Your task to perform on an android device: toggle data saver in the chrome app Image 0: 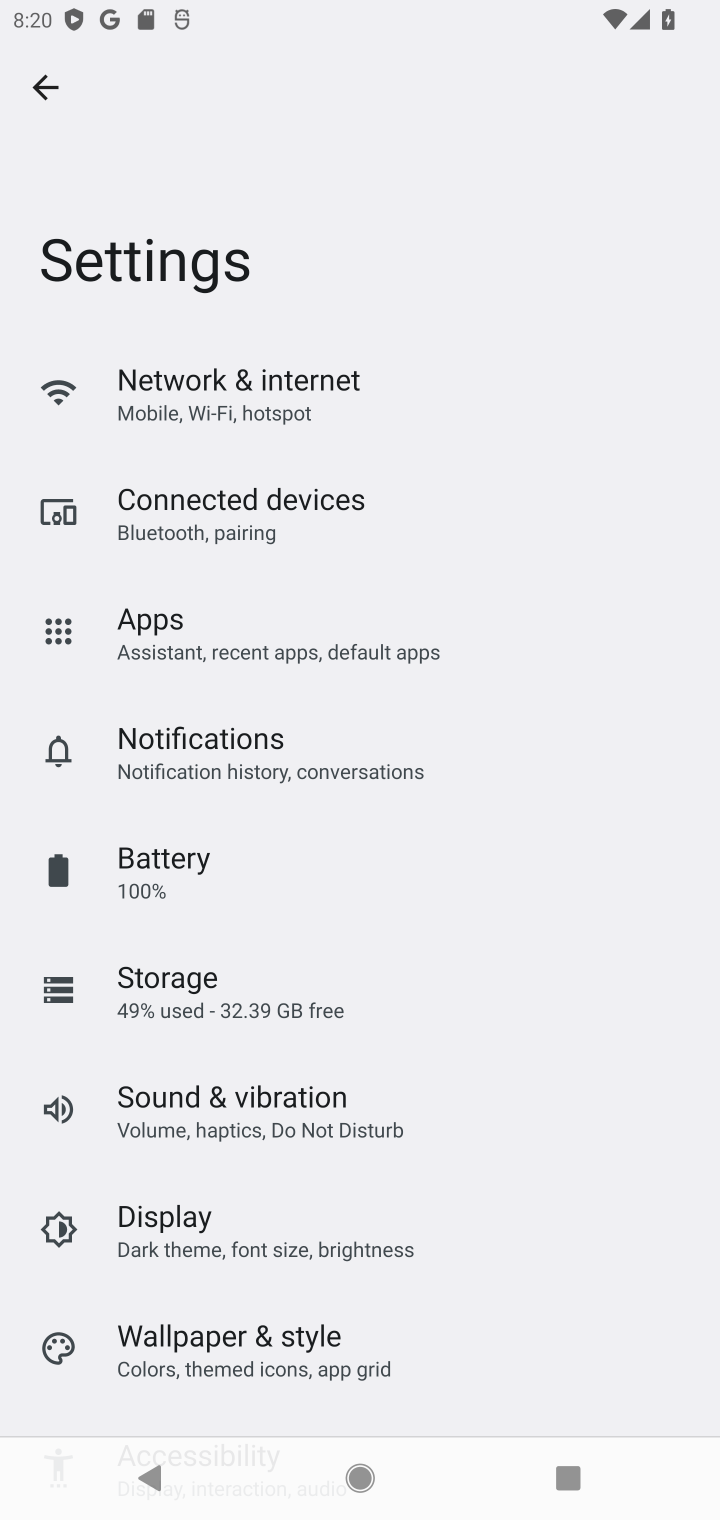
Step 0: press home button
Your task to perform on an android device: toggle data saver in the chrome app Image 1: 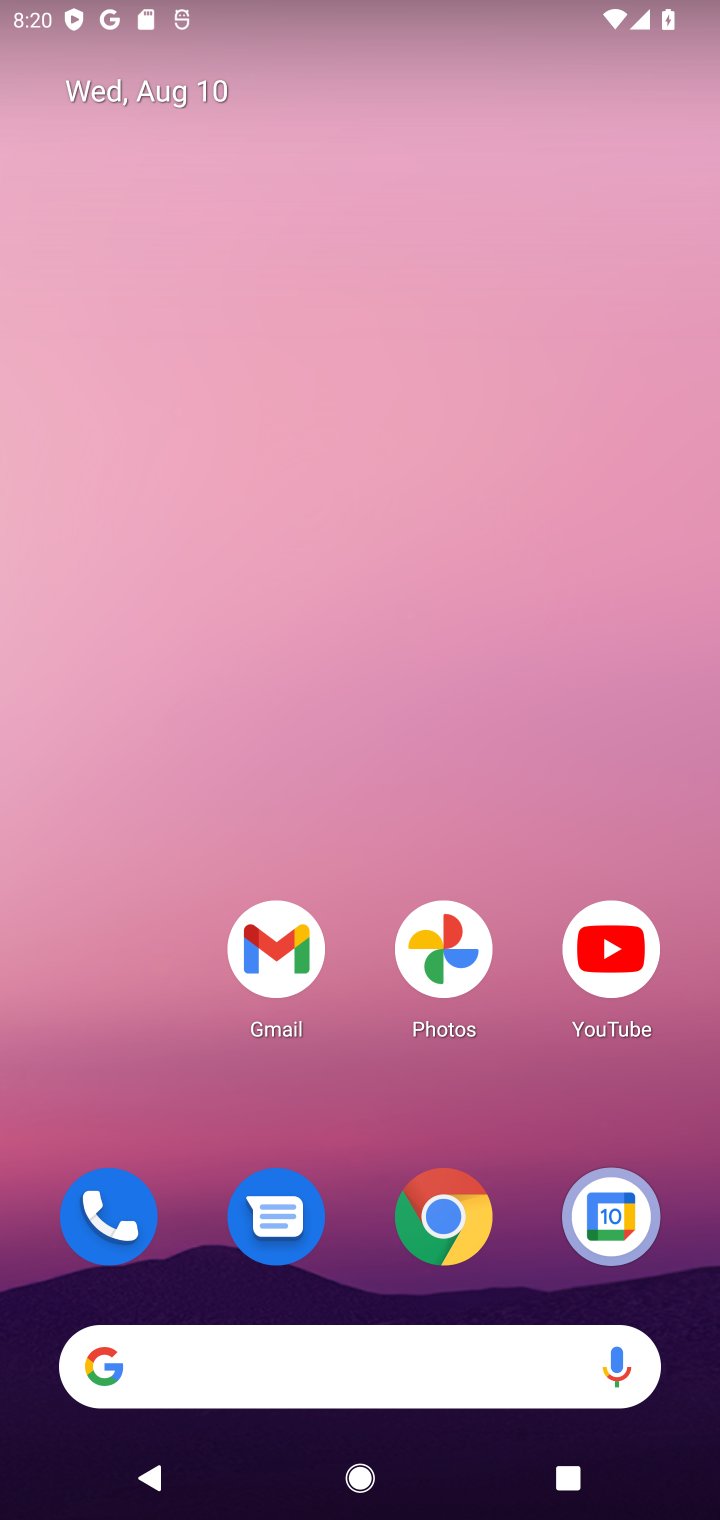
Step 1: click (452, 1428)
Your task to perform on an android device: toggle data saver in the chrome app Image 2: 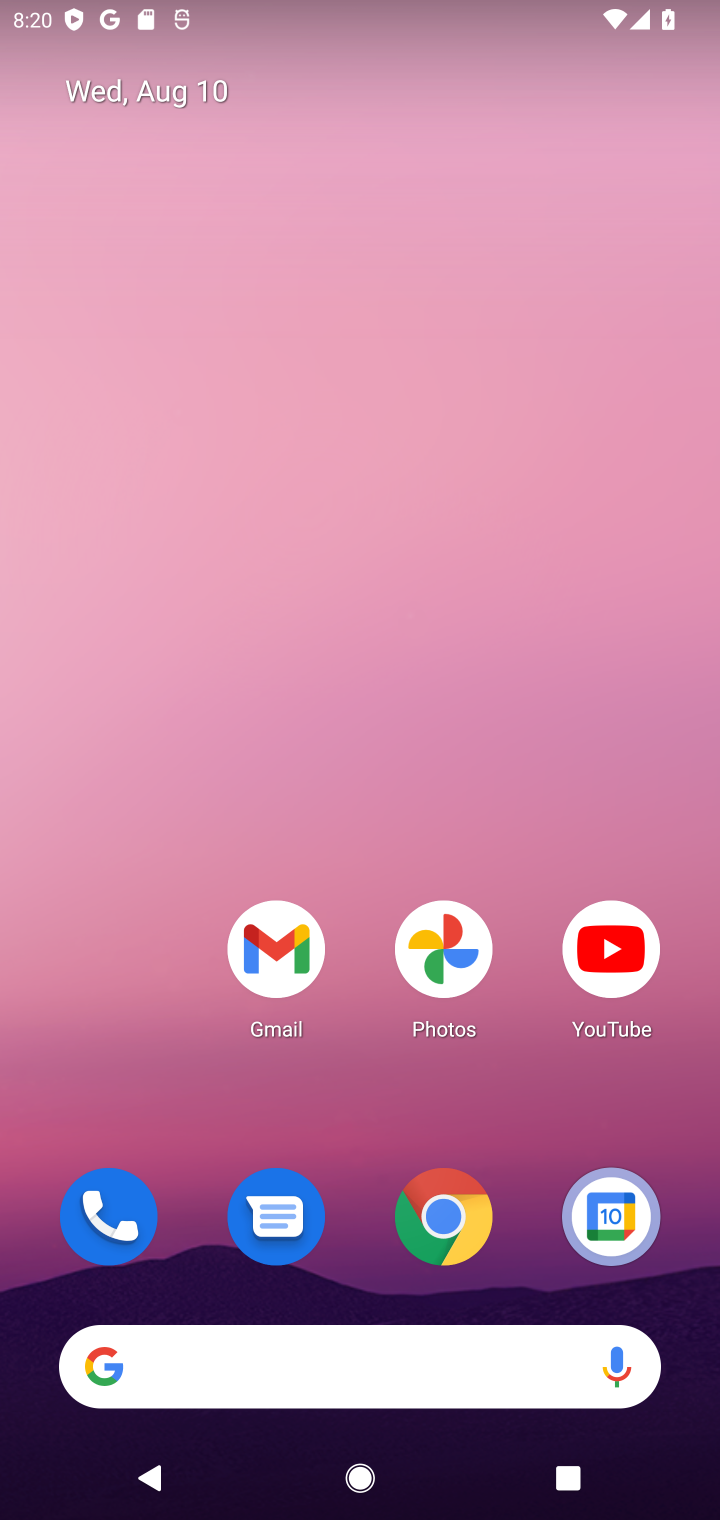
Step 2: click (449, 1210)
Your task to perform on an android device: toggle data saver in the chrome app Image 3: 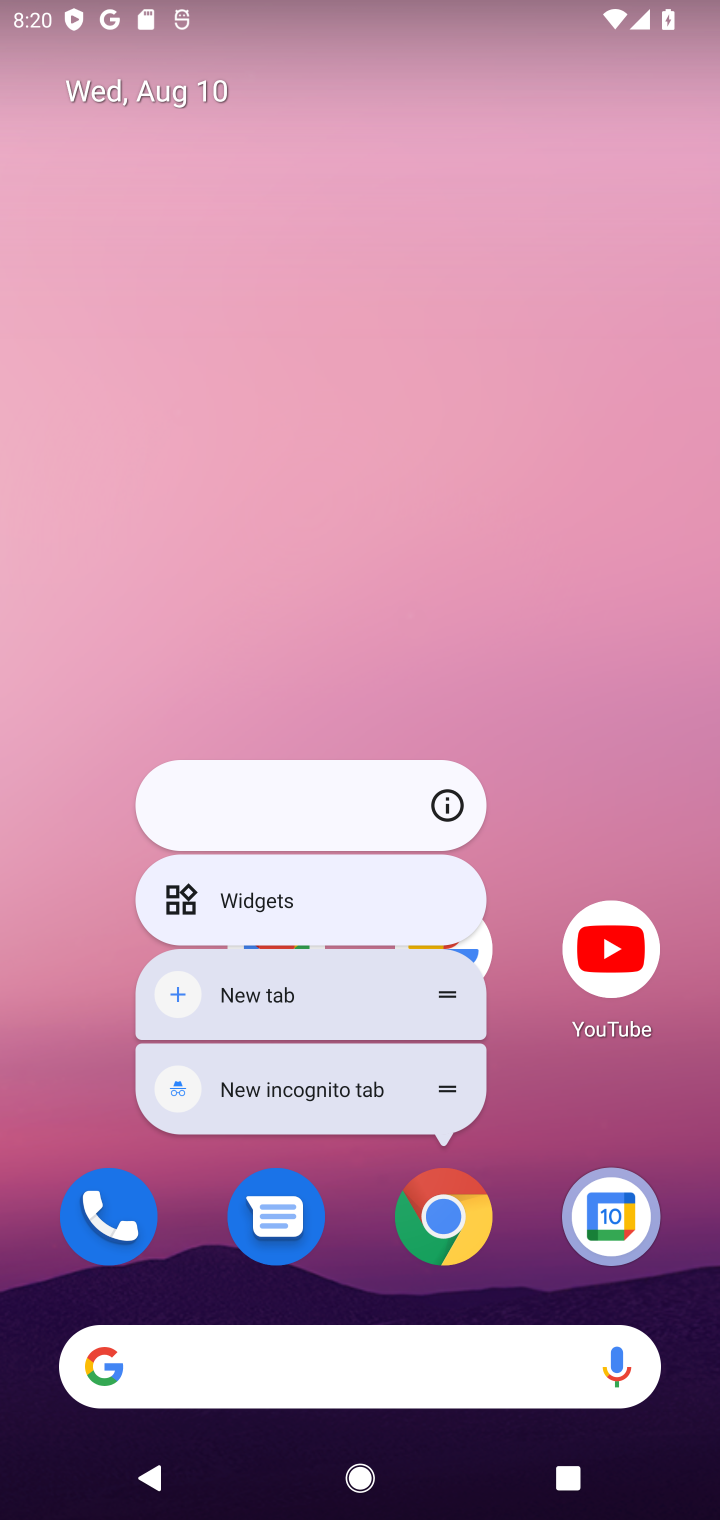
Step 3: click (431, 1217)
Your task to perform on an android device: toggle data saver in the chrome app Image 4: 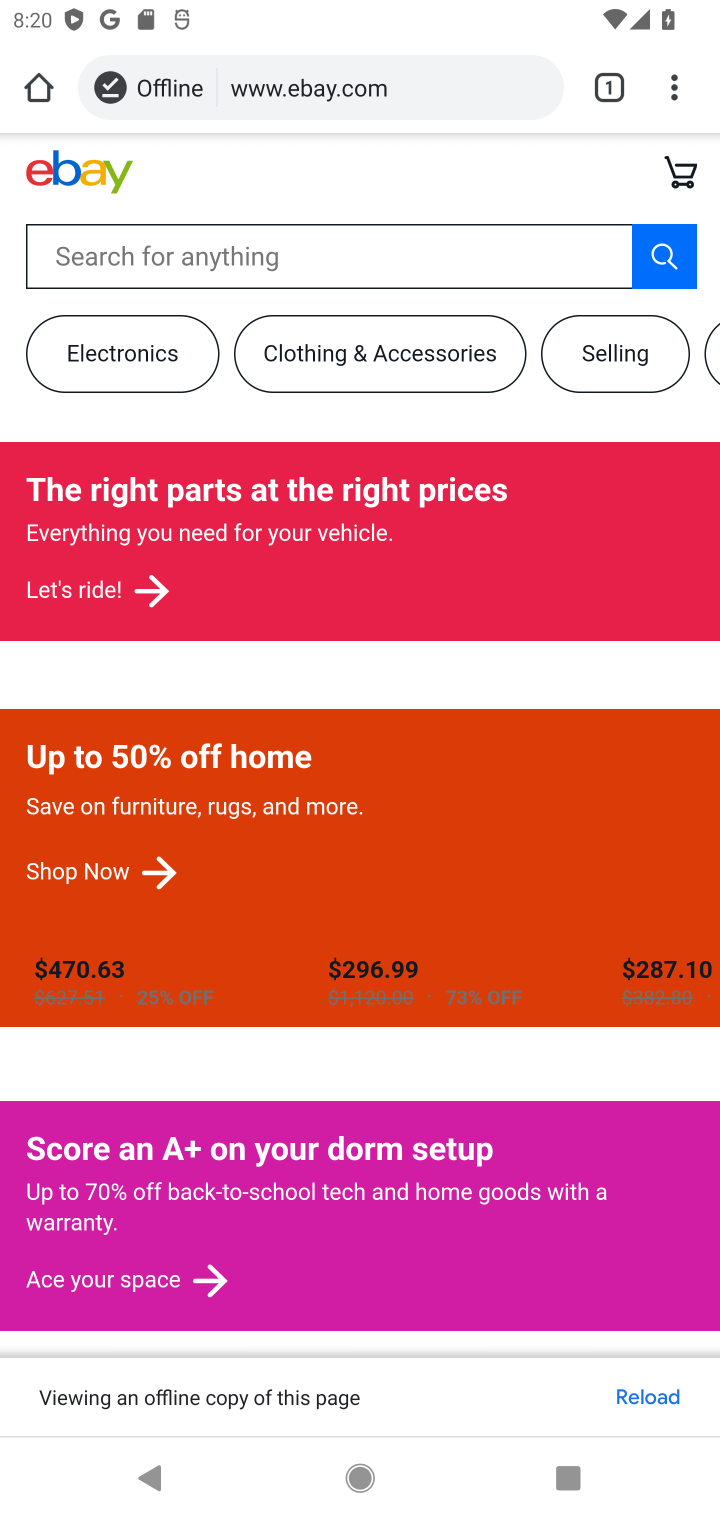
Step 4: click (669, 91)
Your task to perform on an android device: toggle data saver in the chrome app Image 5: 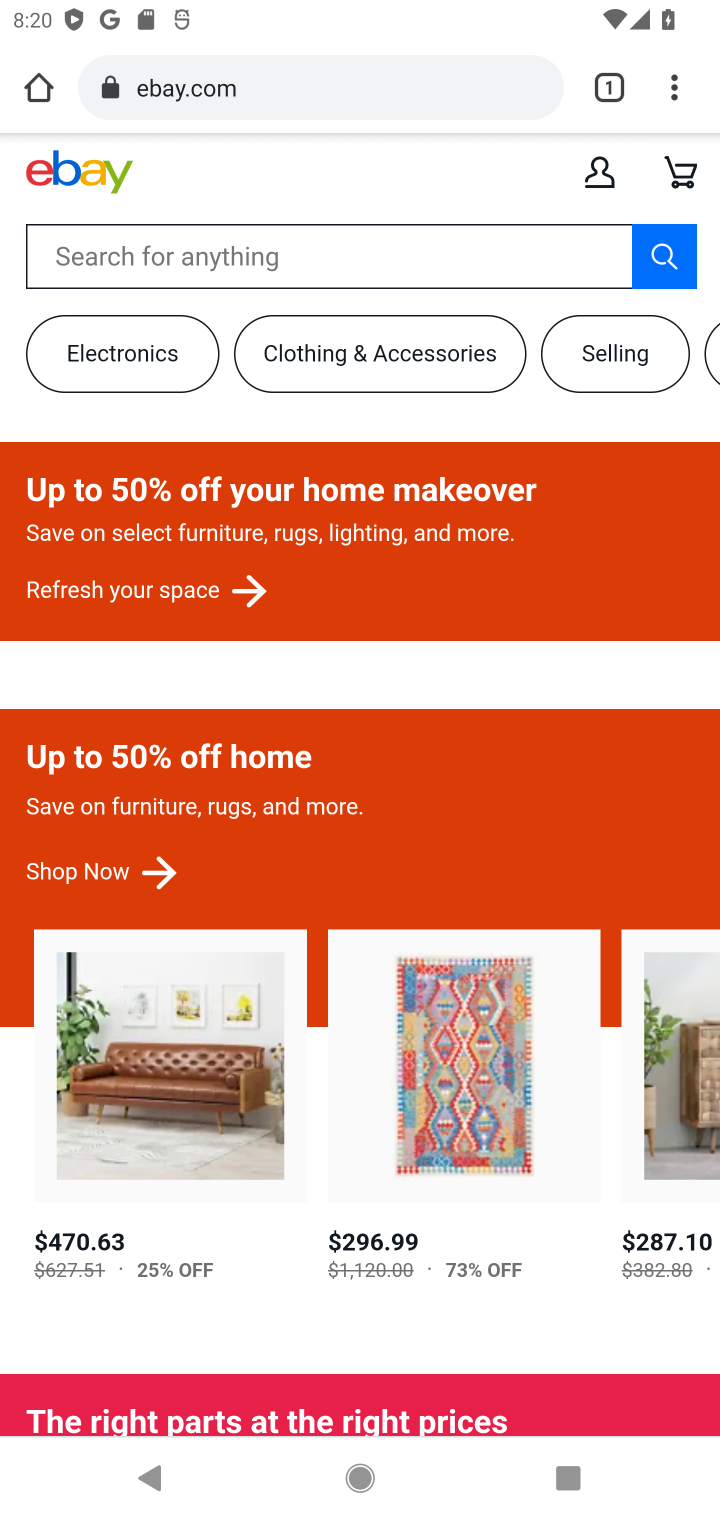
Step 5: click (675, 85)
Your task to perform on an android device: toggle data saver in the chrome app Image 6: 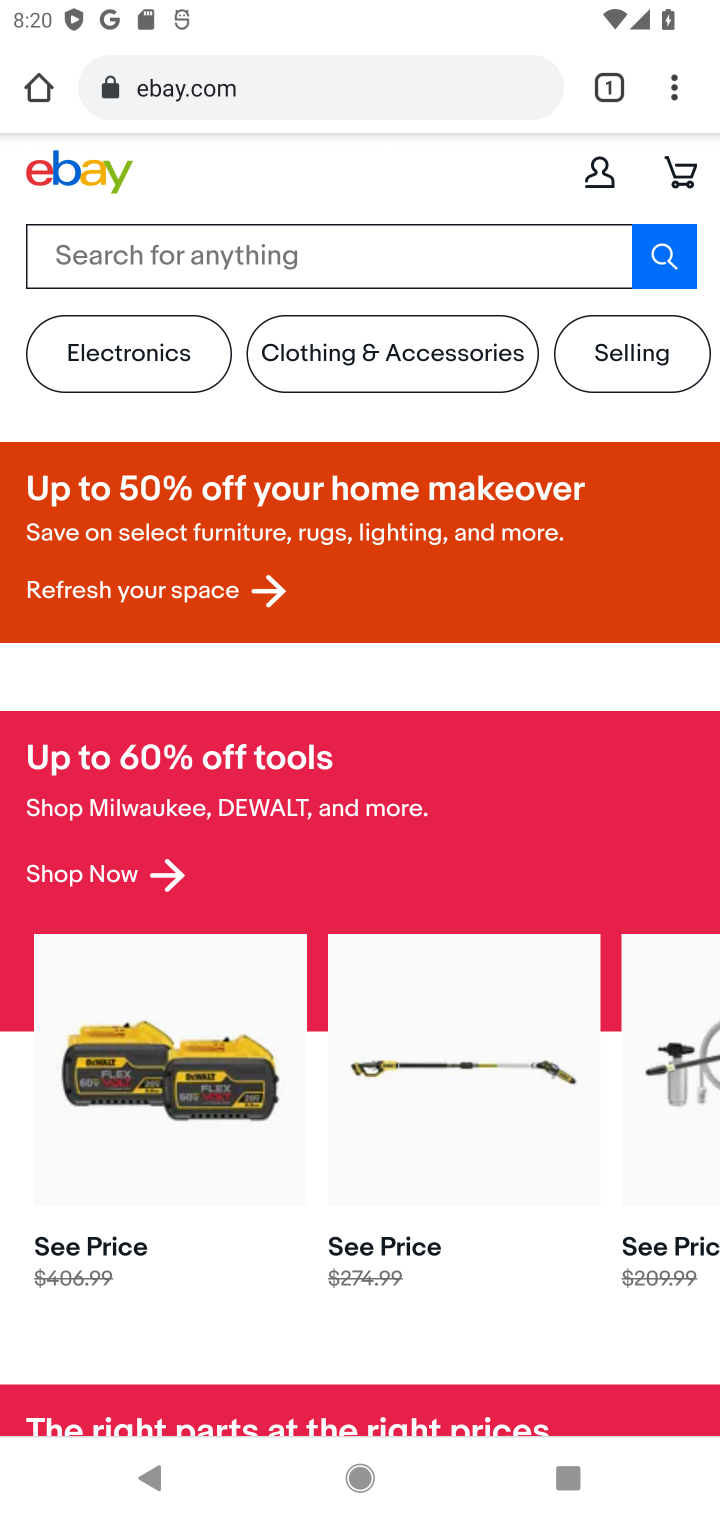
Step 6: click (678, 91)
Your task to perform on an android device: toggle data saver in the chrome app Image 7: 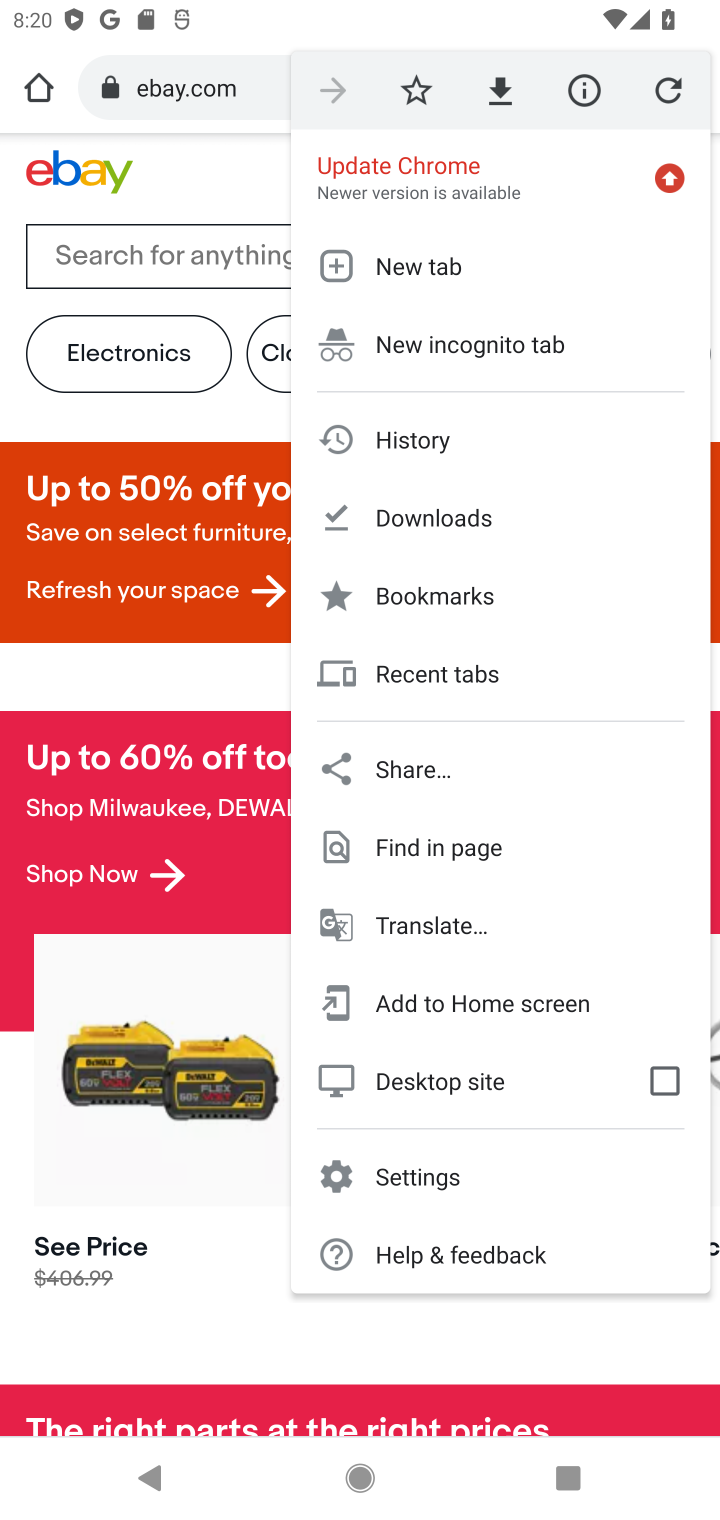
Step 7: click (430, 1170)
Your task to perform on an android device: toggle data saver in the chrome app Image 8: 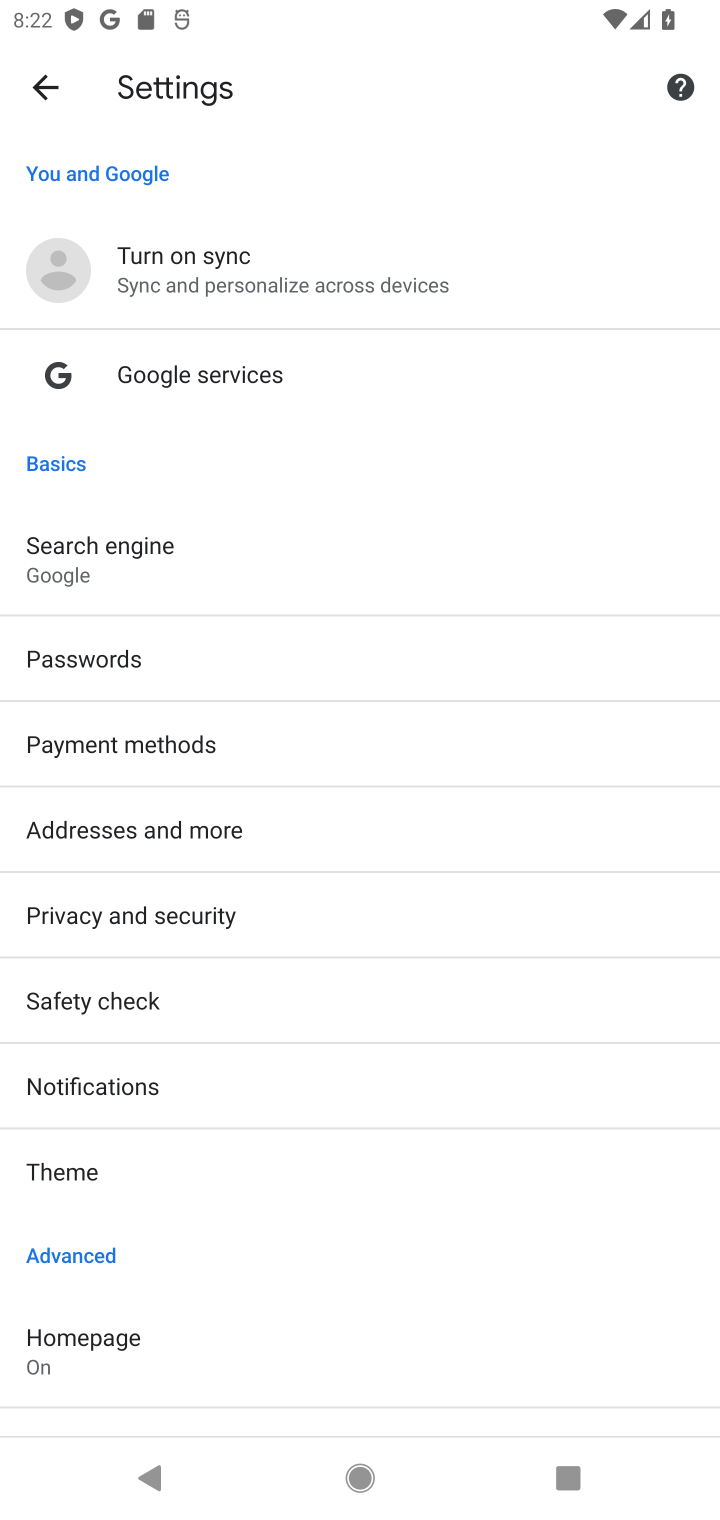
Step 8: drag from (79, 1418) to (261, 522)
Your task to perform on an android device: toggle data saver in the chrome app Image 9: 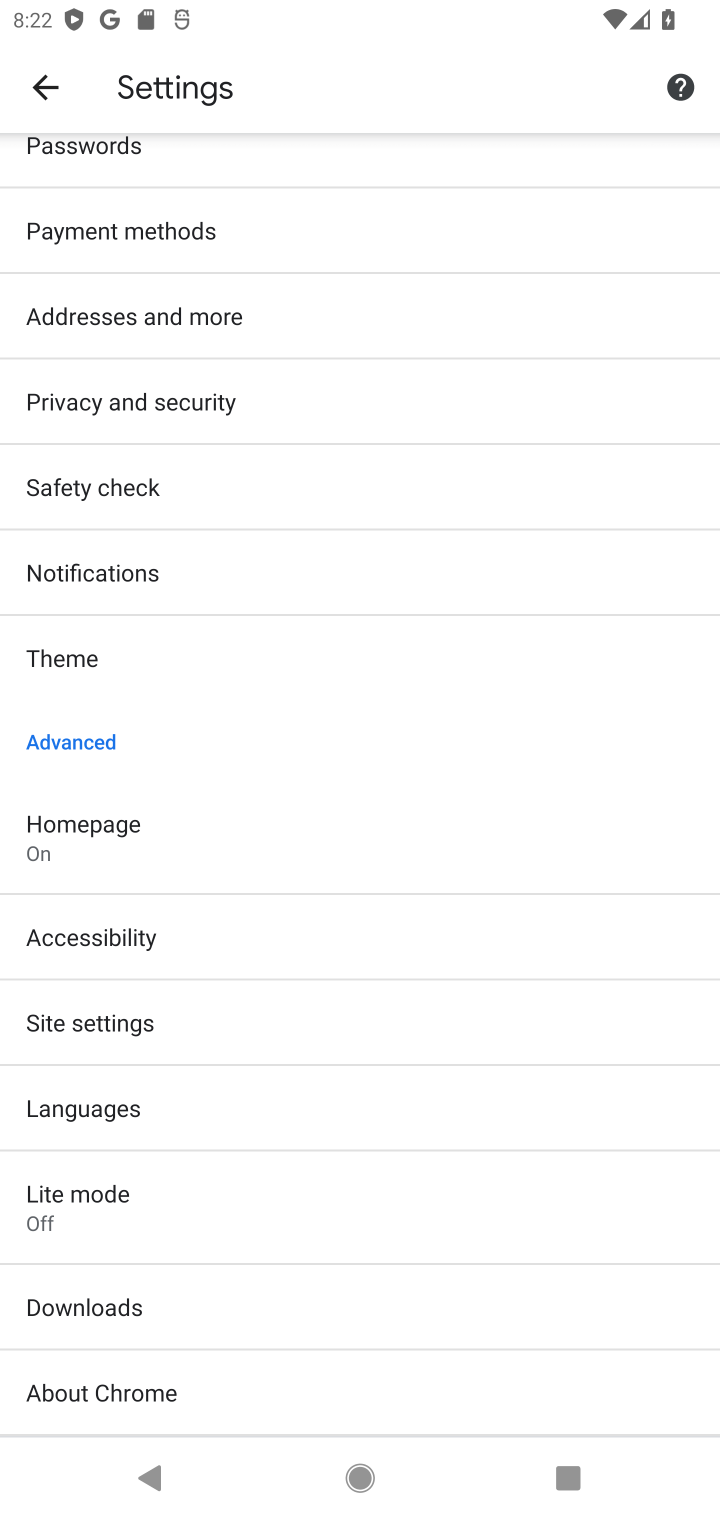
Step 9: click (56, 1216)
Your task to perform on an android device: toggle data saver in the chrome app Image 10: 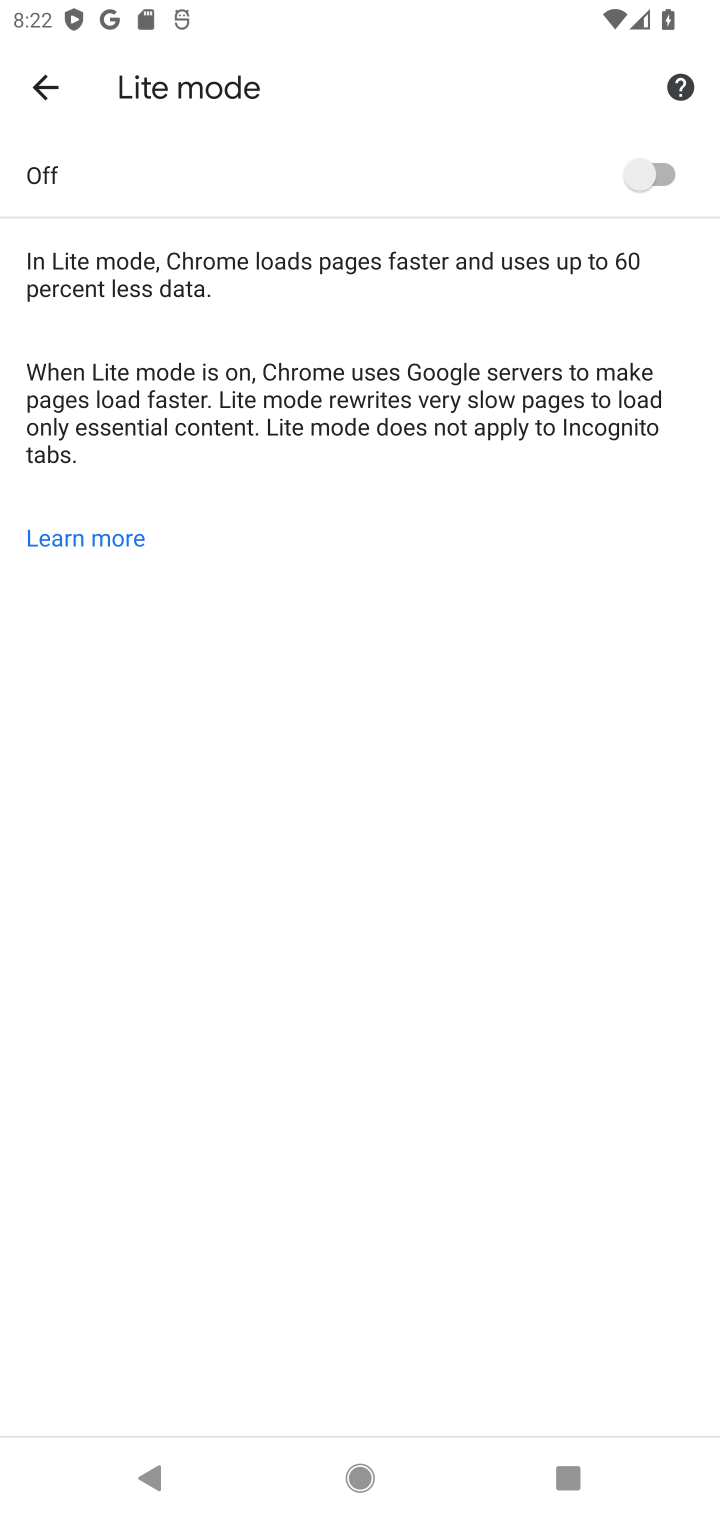
Step 10: click (640, 195)
Your task to perform on an android device: toggle data saver in the chrome app Image 11: 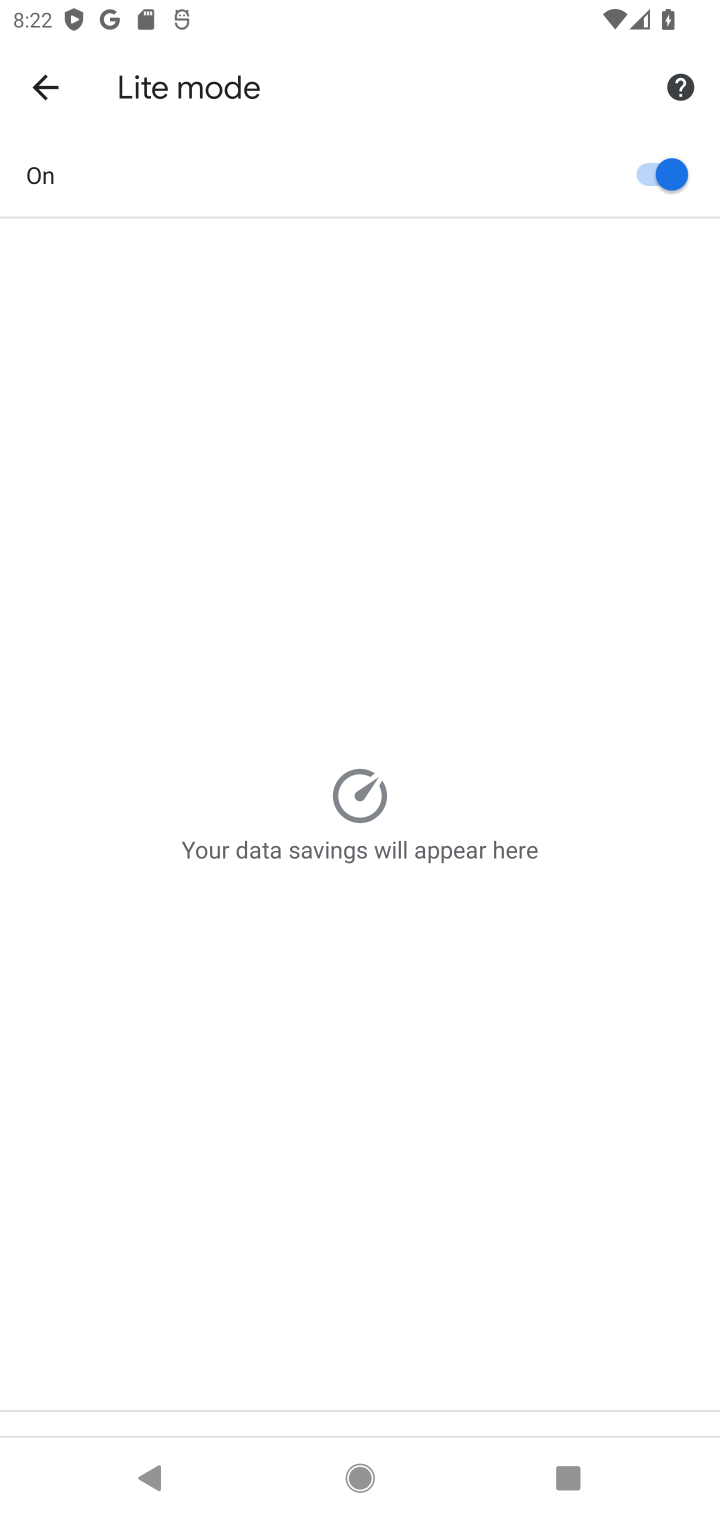
Step 11: task complete